Your task to perform on an android device: Search for the best burger restaurants on Maps Image 0: 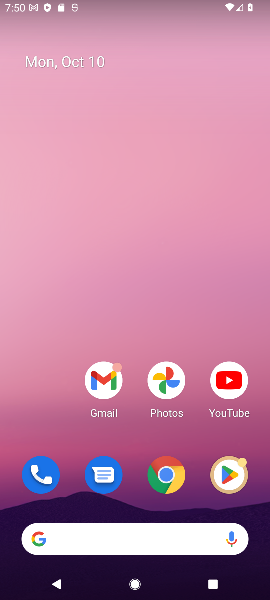
Step 0: drag from (141, 506) to (85, 37)
Your task to perform on an android device: Search for the best burger restaurants on Maps Image 1: 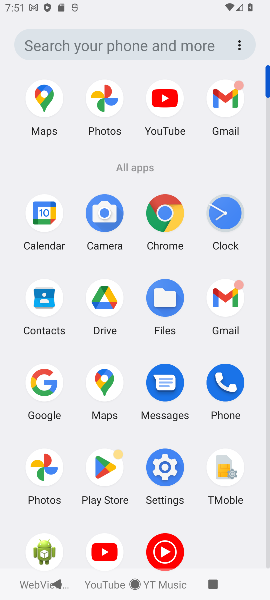
Step 1: click (109, 387)
Your task to perform on an android device: Search for the best burger restaurants on Maps Image 2: 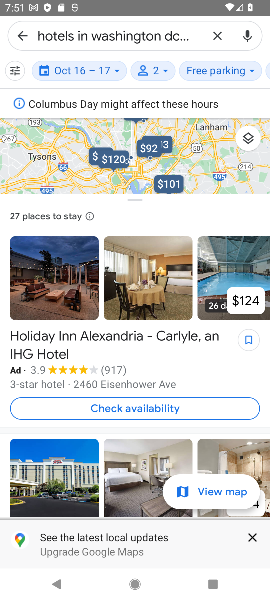
Step 2: click (163, 33)
Your task to perform on an android device: Search for the best burger restaurants on Maps Image 3: 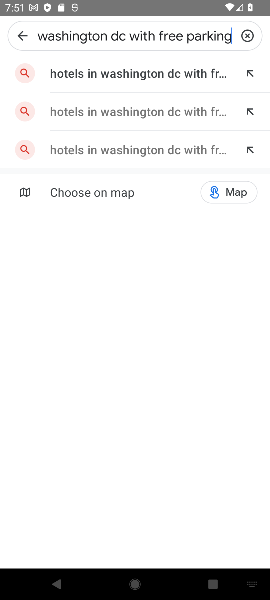
Step 3: click (247, 34)
Your task to perform on an android device: Search for the best burger restaurants on Maps Image 4: 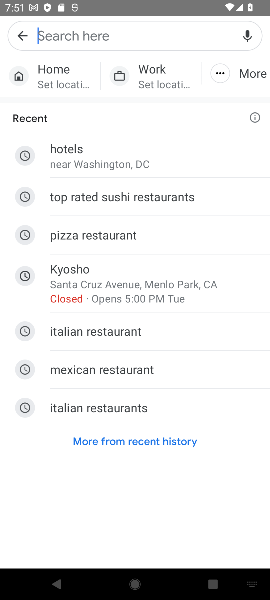
Step 4: type "the best burger restaurants"
Your task to perform on an android device: Search for the best burger restaurants on Maps Image 5: 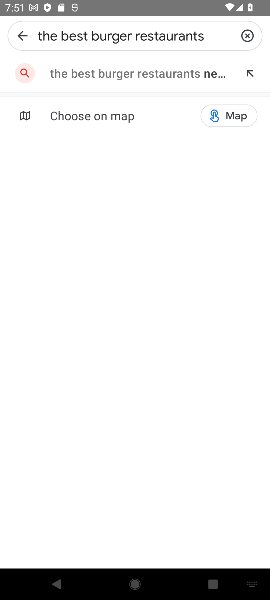
Step 5: click (142, 73)
Your task to perform on an android device: Search for the best burger restaurants on Maps Image 6: 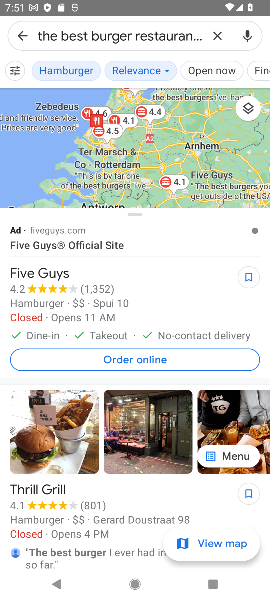
Step 6: task complete